Your task to perform on an android device: What is the recent news? Image 0: 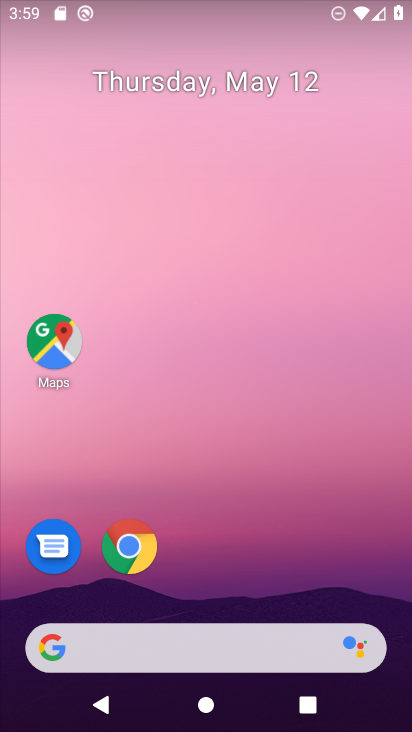
Step 0: drag from (257, 579) to (290, 210)
Your task to perform on an android device: What is the recent news? Image 1: 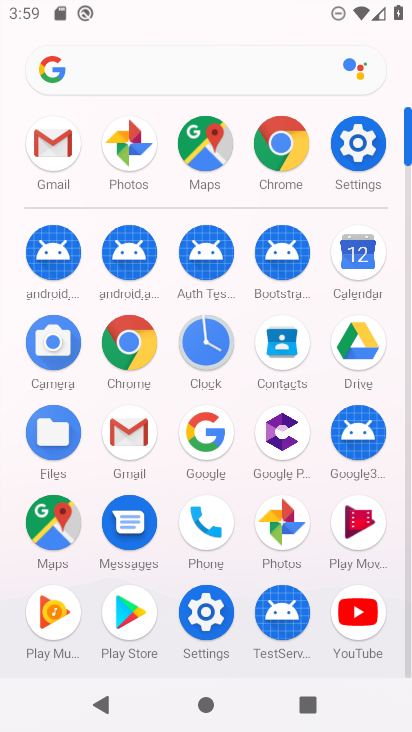
Step 1: click (256, 136)
Your task to perform on an android device: What is the recent news? Image 2: 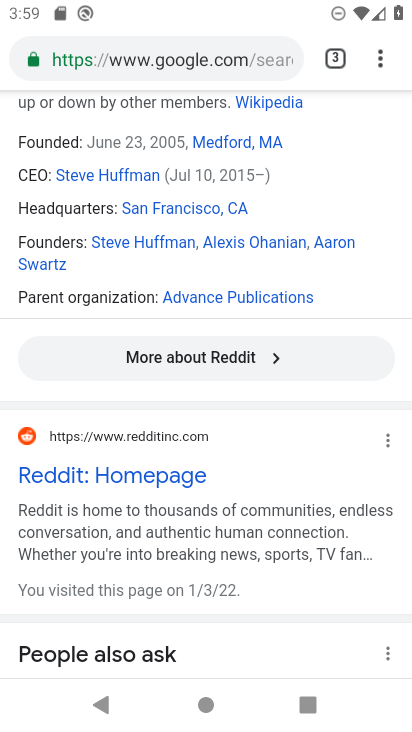
Step 2: click (370, 58)
Your task to perform on an android device: What is the recent news? Image 3: 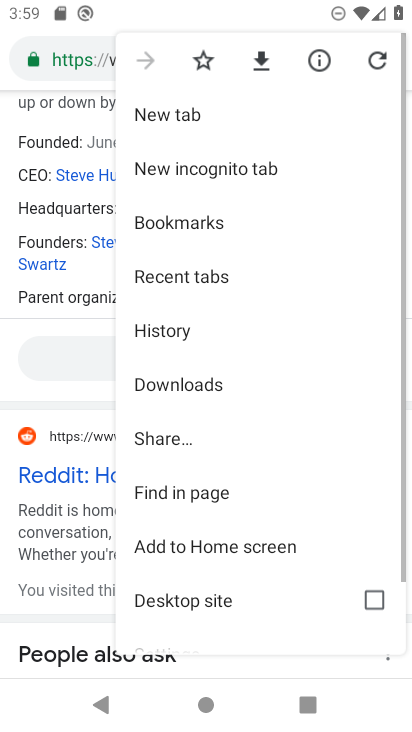
Step 3: click (205, 107)
Your task to perform on an android device: What is the recent news? Image 4: 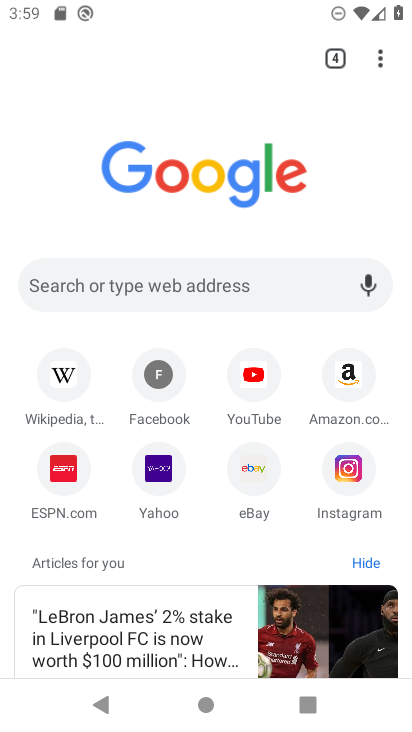
Step 4: click (180, 281)
Your task to perform on an android device: What is the recent news? Image 5: 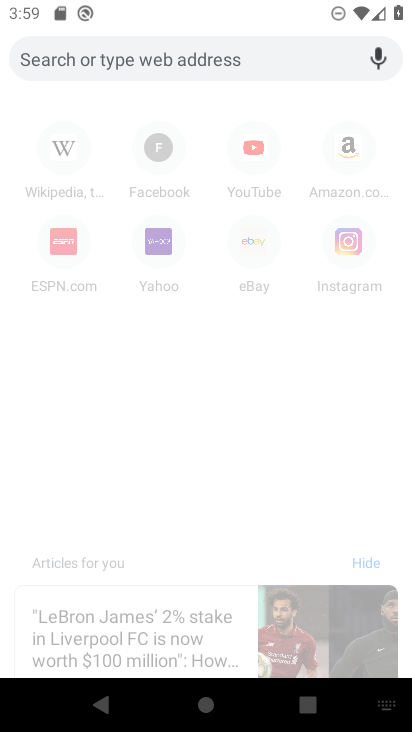
Step 5: type "What is the recent news?"
Your task to perform on an android device: What is the recent news? Image 6: 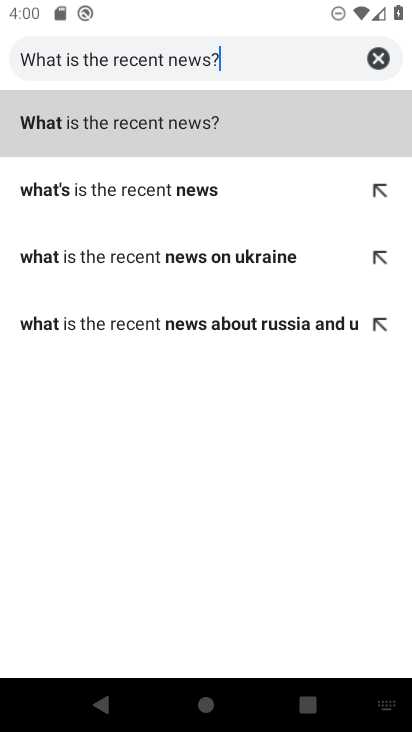
Step 6: click (162, 121)
Your task to perform on an android device: What is the recent news? Image 7: 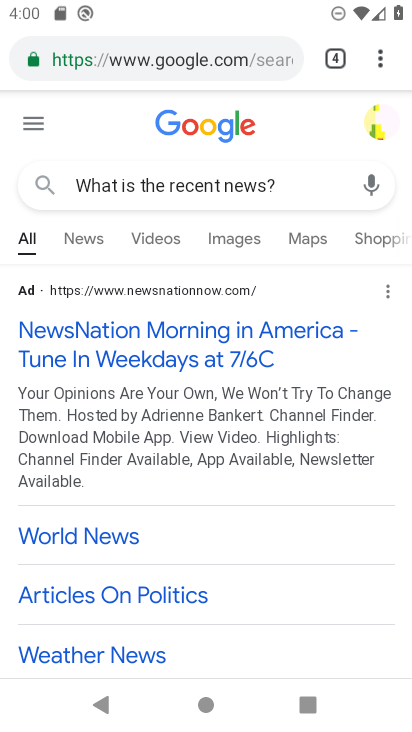
Step 7: task complete